Your task to perform on an android device: delete location history Image 0: 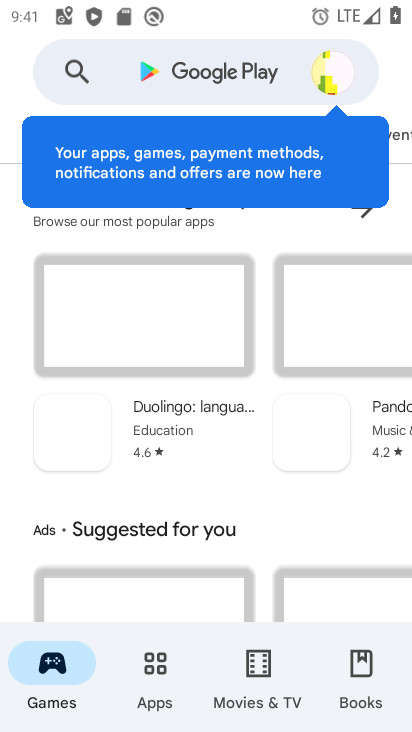
Step 0: press home button
Your task to perform on an android device: delete location history Image 1: 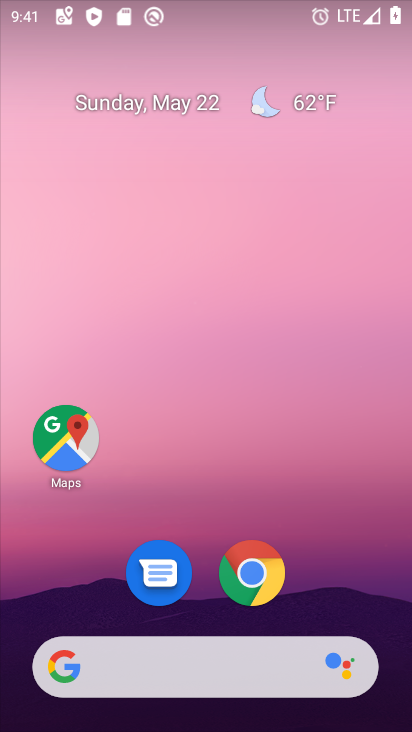
Step 1: drag from (293, 179) to (295, 122)
Your task to perform on an android device: delete location history Image 2: 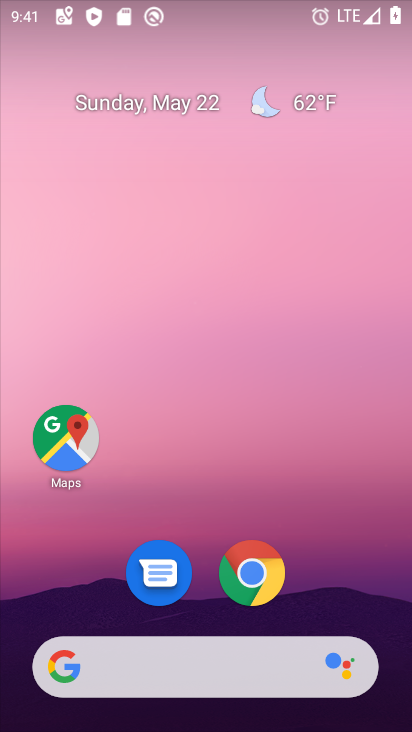
Step 2: drag from (243, 625) to (238, 100)
Your task to perform on an android device: delete location history Image 3: 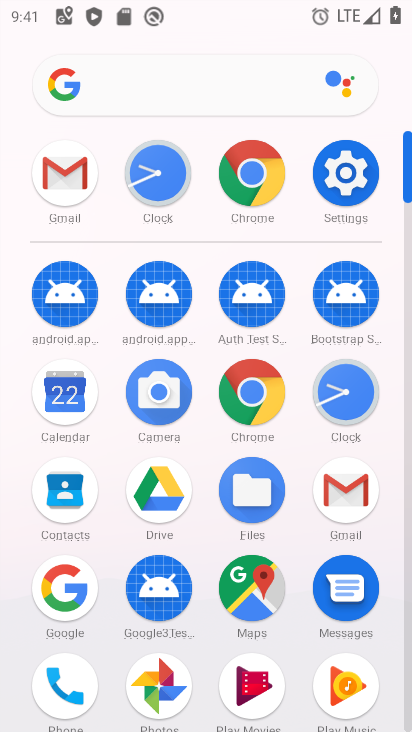
Step 3: click (341, 186)
Your task to perform on an android device: delete location history Image 4: 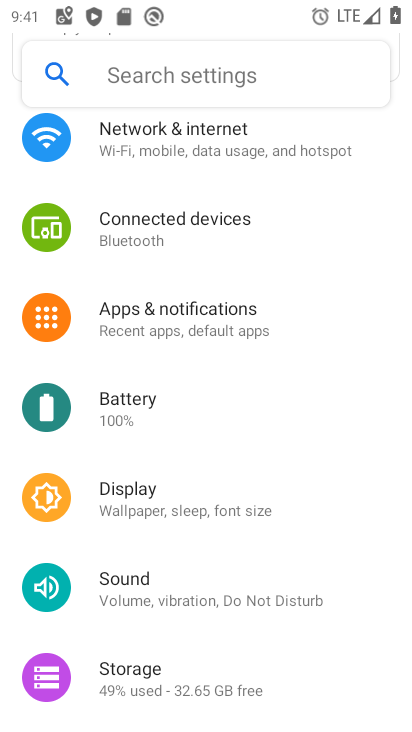
Step 4: press home button
Your task to perform on an android device: delete location history Image 5: 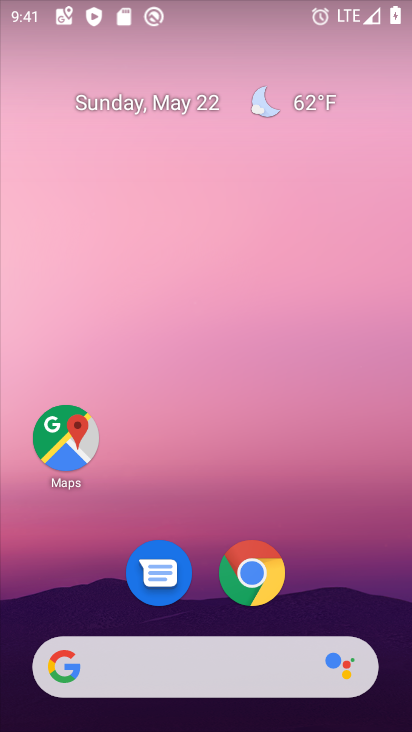
Step 5: drag from (281, 666) to (232, 241)
Your task to perform on an android device: delete location history Image 6: 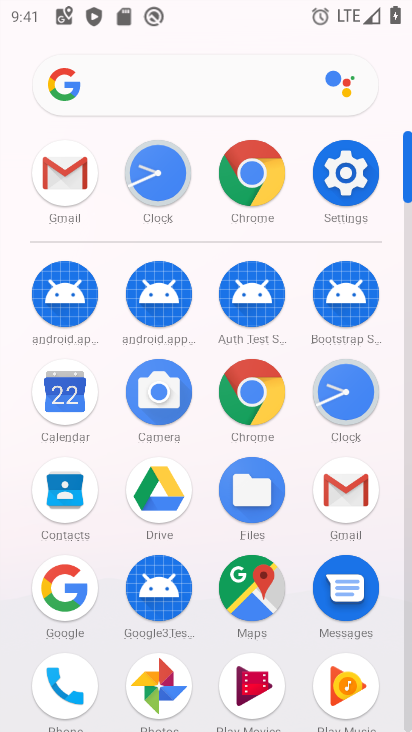
Step 6: click (255, 563)
Your task to perform on an android device: delete location history Image 7: 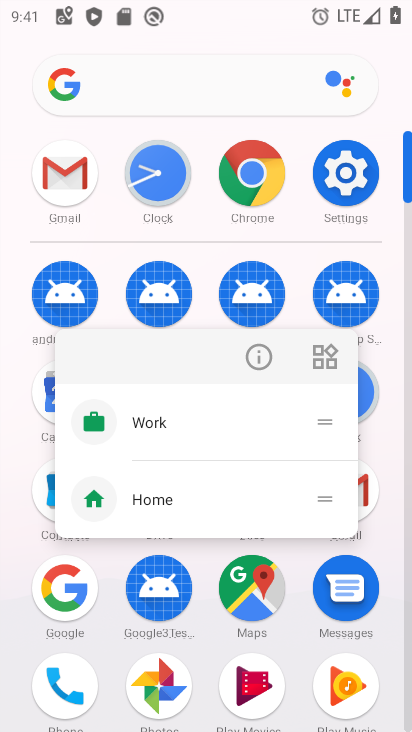
Step 7: click (246, 585)
Your task to perform on an android device: delete location history Image 8: 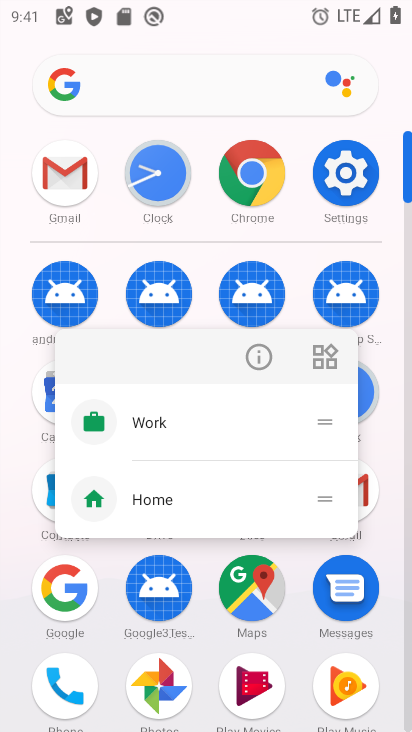
Step 8: click (246, 585)
Your task to perform on an android device: delete location history Image 9: 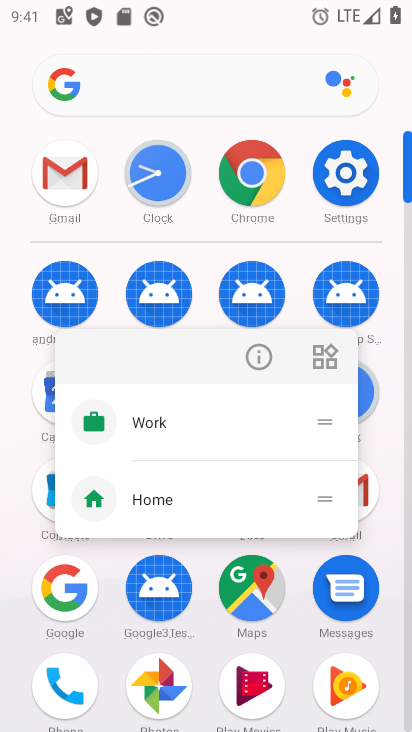
Step 9: click (246, 585)
Your task to perform on an android device: delete location history Image 10: 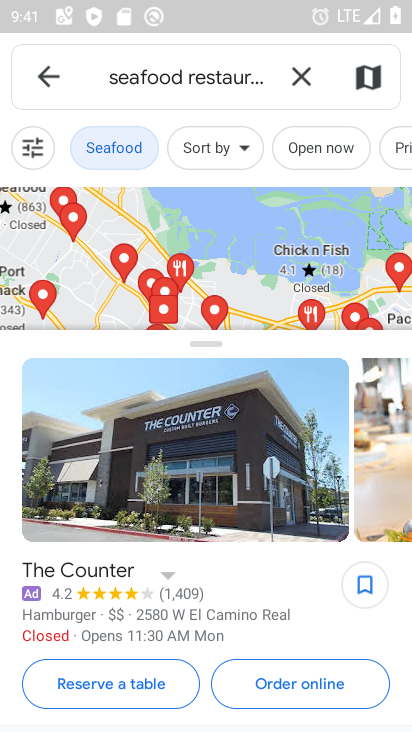
Step 10: press back button
Your task to perform on an android device: delete location history Image 11: 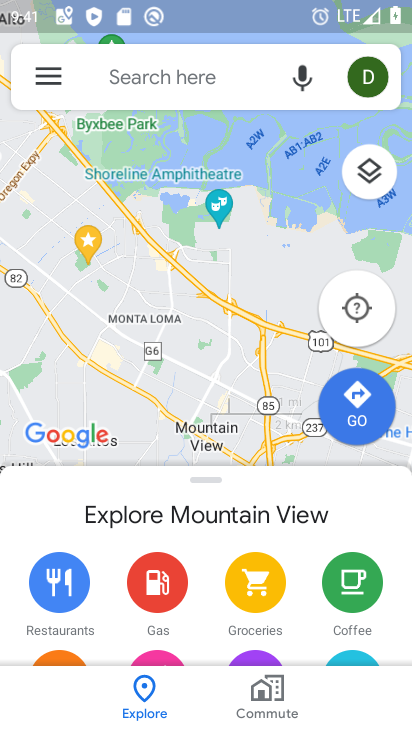
Step 11: click (48, 71)
Your task to perform on an android device: delete location history Image 12: 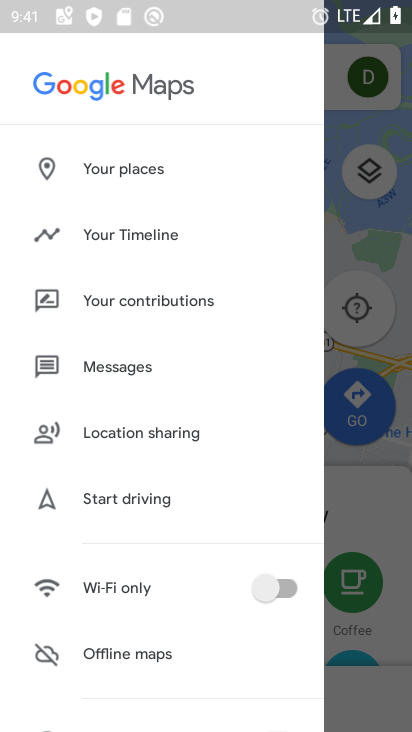
Step 12: click (111, 220)
Your task to perform on an android device: delete location history Image 13: 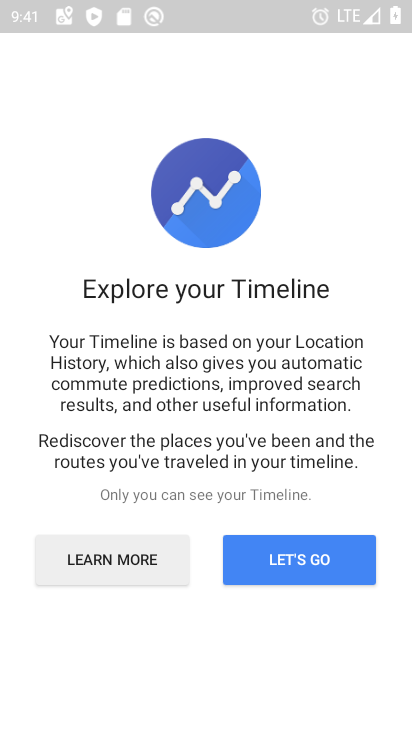
Step 13: click (232, 536)
Your task to perform on an android device: delete location history Image 14: 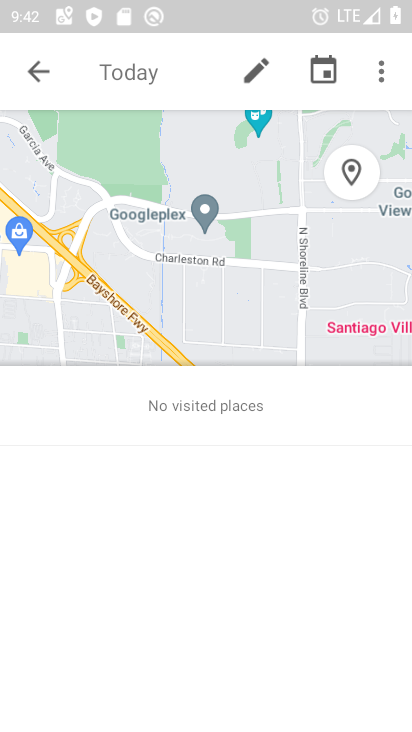
Step 14: click (383, 83)
Your task to perform on an android device: delete location history Image 15: 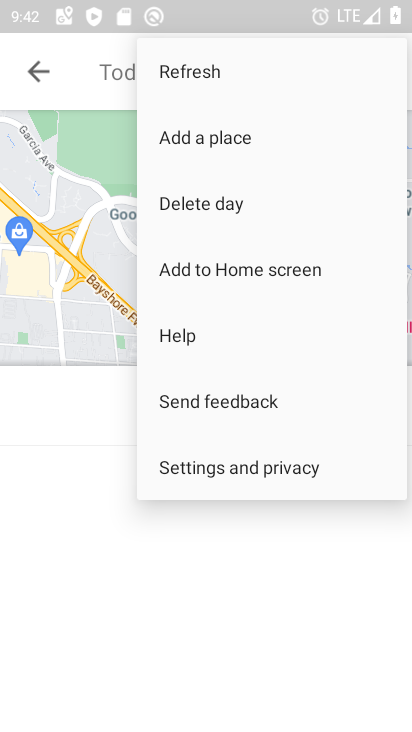
Step 15: click (294, 454)
Your task to perform on an android device: delete location history Image 16: 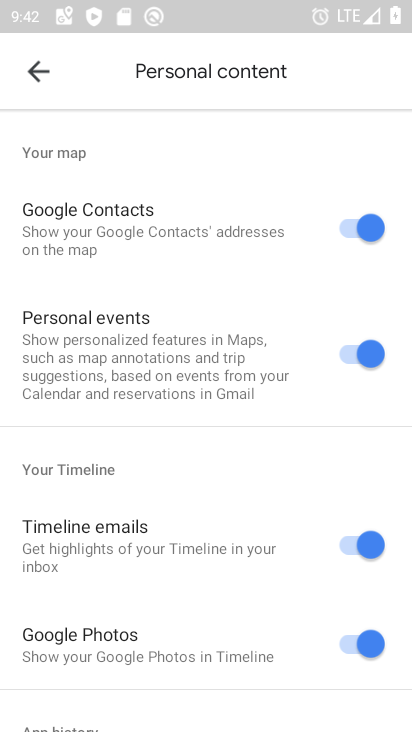
Step 16: drag from (279, 672) to (183, 170)
Your task to perform on an android device: delete location history Image 17: 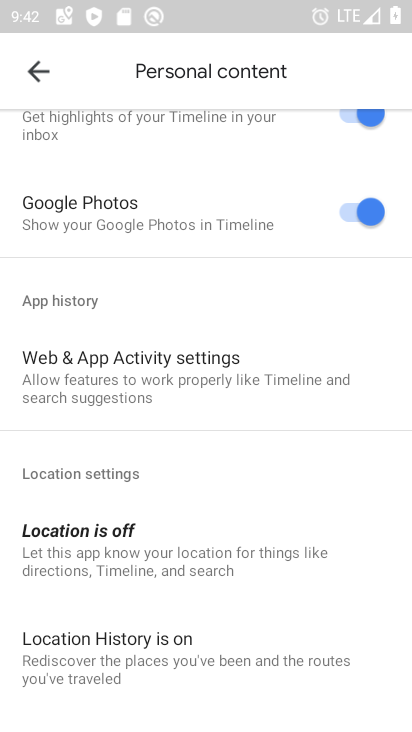
Step 17: drag from (242, 660) to (205, 327)
Your task to perform on an android device: delete location history Image 18: 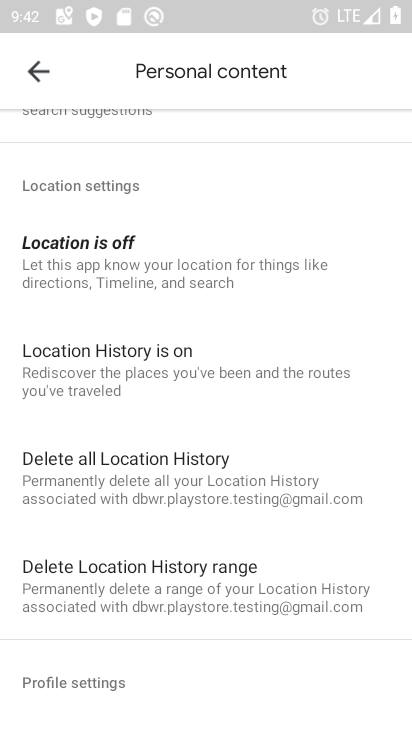
Step 18: click (163, 450)
Your task to perform on an android device: delete location history Image 19: 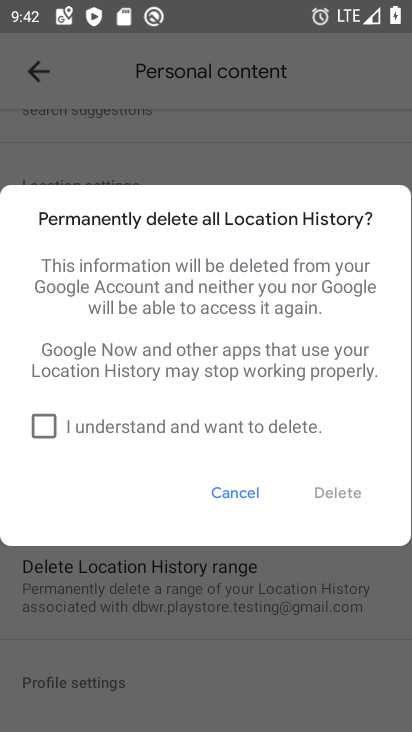
Step 19: click (40, 416)
Your task to perform on an android device: delete location history Image 20: 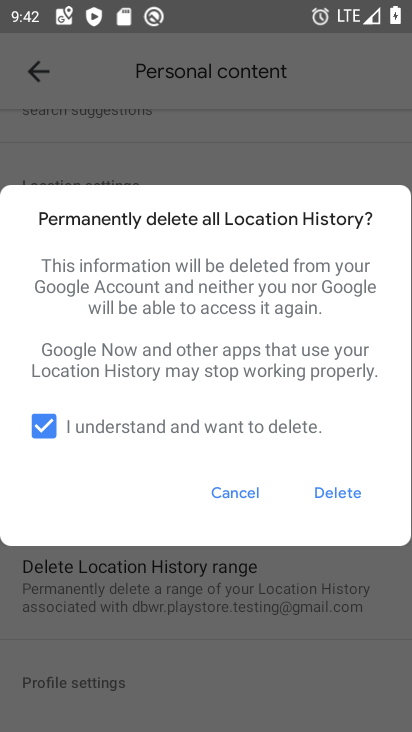
Step 20: click (335, 496)
Your task to perform on an android device: delete location history Image 21: 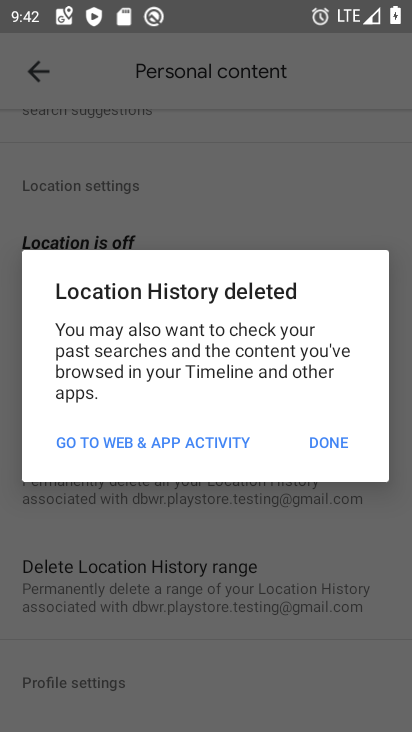
Step 21: click (335, 451)
Your task to perform on an android device: delete location history Image 22: 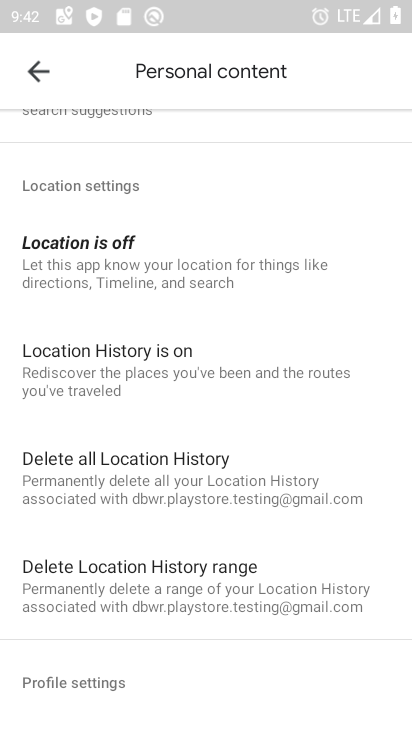
Step 22: task complete